Your task to perform on an android device: add a contact Image 0: 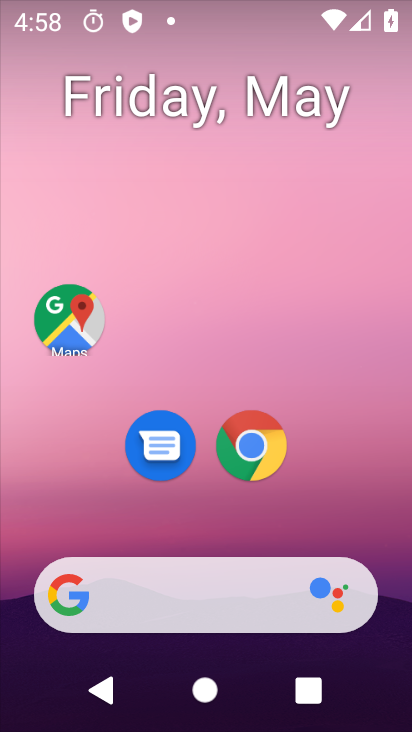
Step 0: drag from (333, 591) to (178, 60)
Your task to perform on an android device: add a contact Image 1: 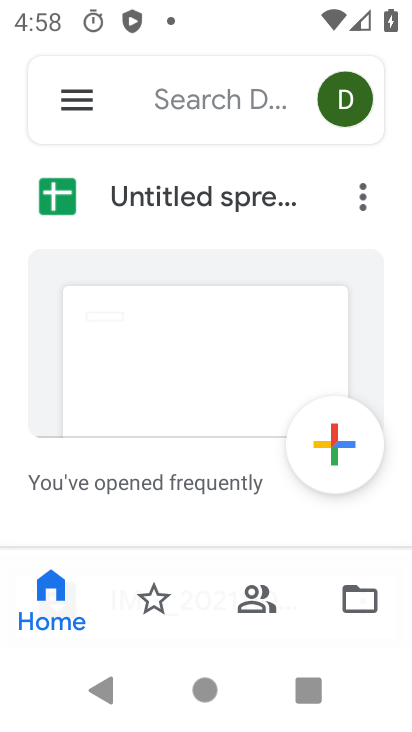
Step 1: press back button
Your task to perform on an android device: add a contact Image 2: 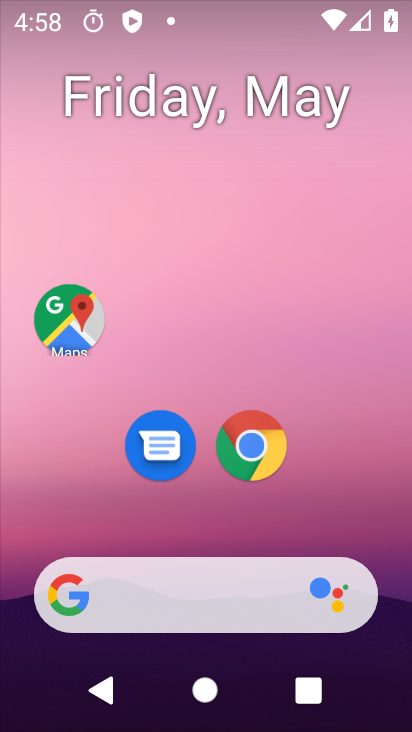
Step 2: drag from (321, 644) to (188, 162)
Your task to perform on an android device: add a contact Image 3: 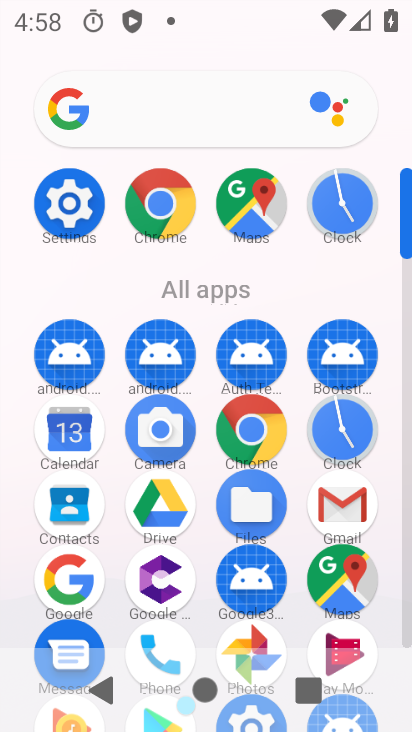
Step 3: click (74, 506)
Your task to perform on an android device: add a contact Image 4: 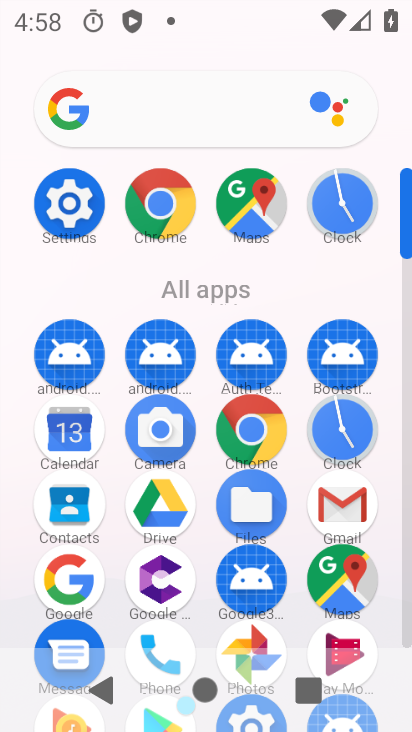
Step 4: click (75, 506)
Your task to perform on an android device: add a contact Image 5: 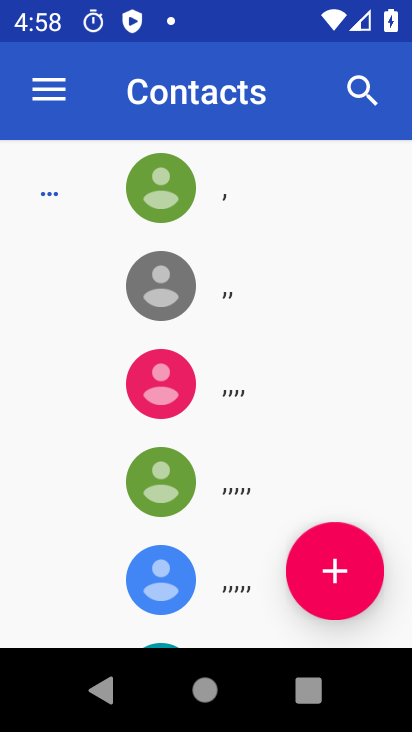
Step 5: click (347, 583)
Your task to perform on an android device: add a contact Image 6: 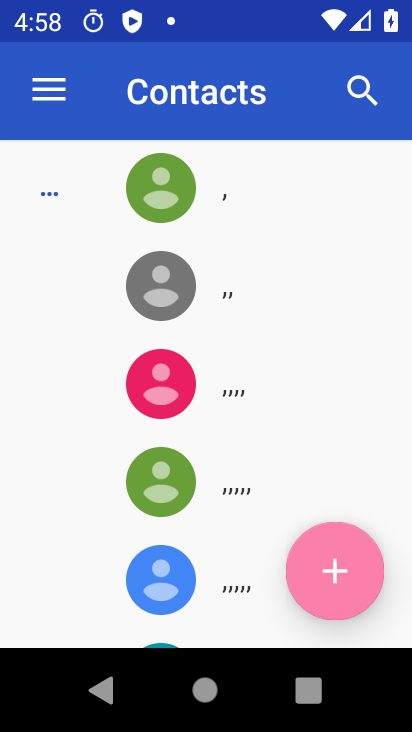
Step 6: click (339, 583)
Your task to perform on an android device: add a contact Image 7: 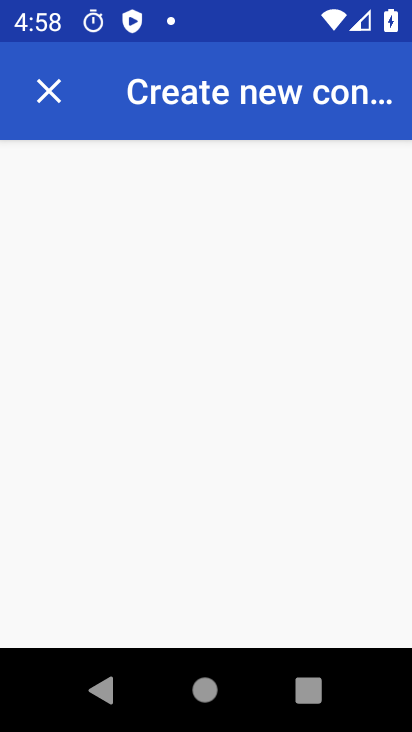
Step 7: click (337, 583)
Your task to perform on an android device: add a contact Image 8: 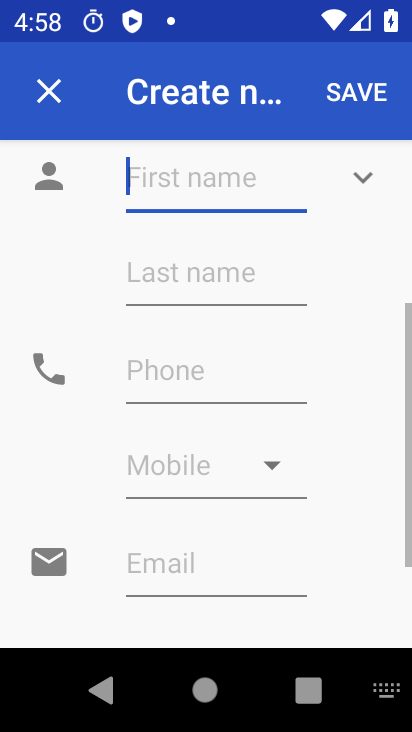
Step 8: click (337, 583)
Your task to perform on an android device: add a contact Image 9: 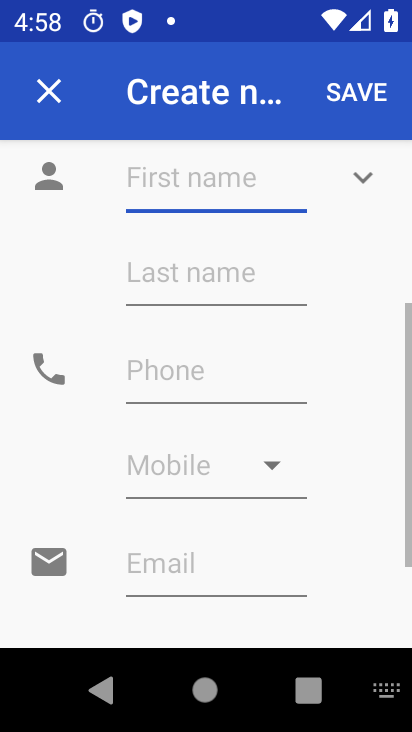
Step 9: click (330, 579)
Your task to perform on an android device: add a contact Image 10: 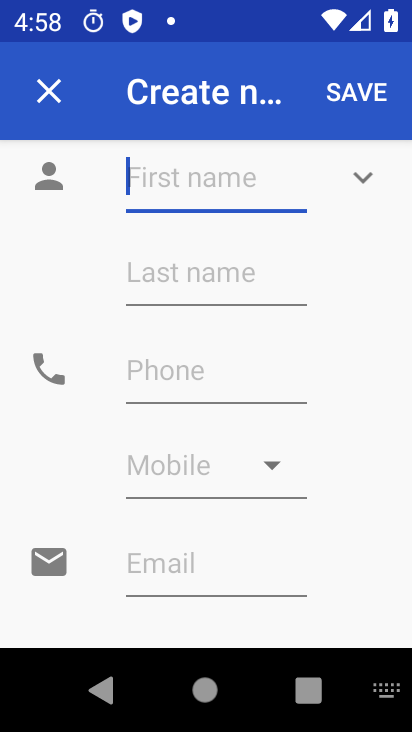
Step 10: type "ytuyewguywf"
Your task to perform on an android device: add a contact Image 11: 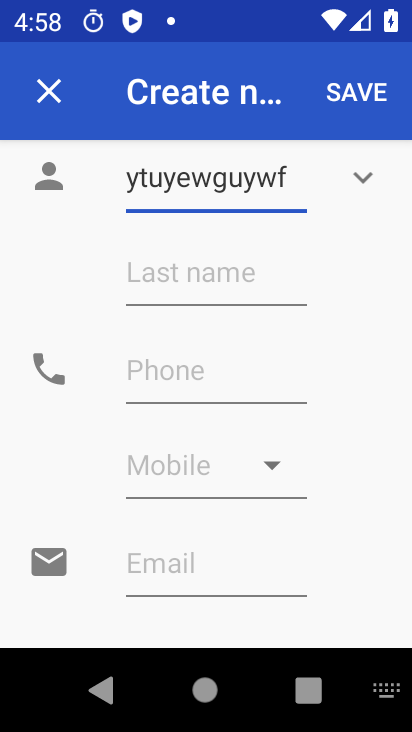
Step 11: click (155, 385)
Your task to perform on an android device: add a contact Image 12: 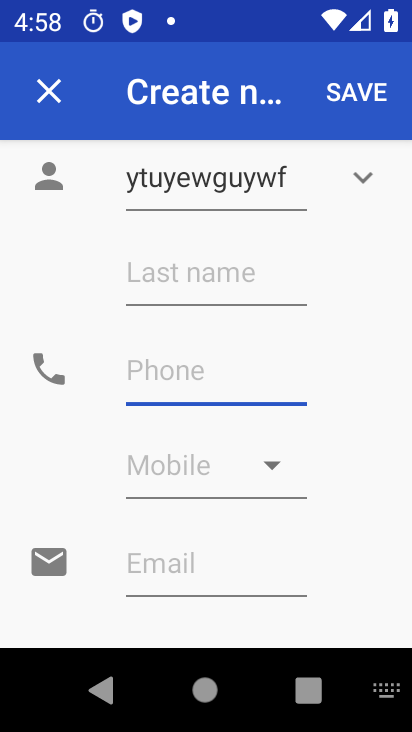
Step 12: click (155, 385)
Your task to perform on an android device: add a contact Image 13: 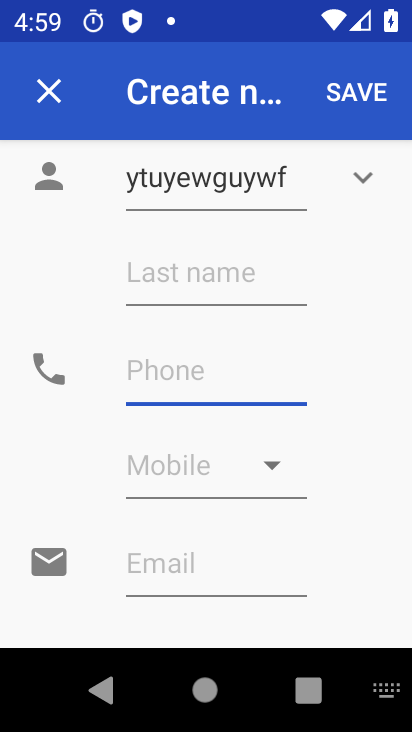
Step 13: type "6876487348788"
Your task to perform on an android device: add a contact Image 14: 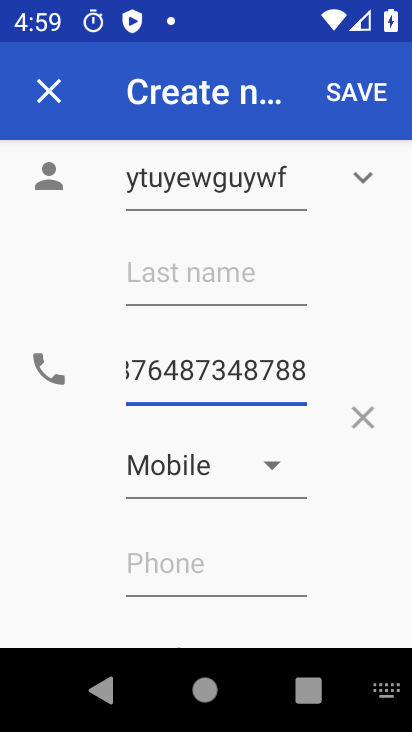
Step 14: click (337, 91)
Your task to perform on an android device: add a contact Image 15: 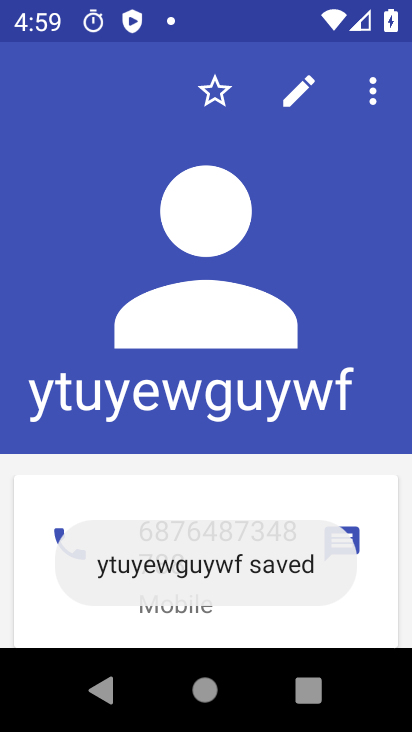
Step 15: click (331, 62)
Your task to perform on an android device: add a contact Image 16: 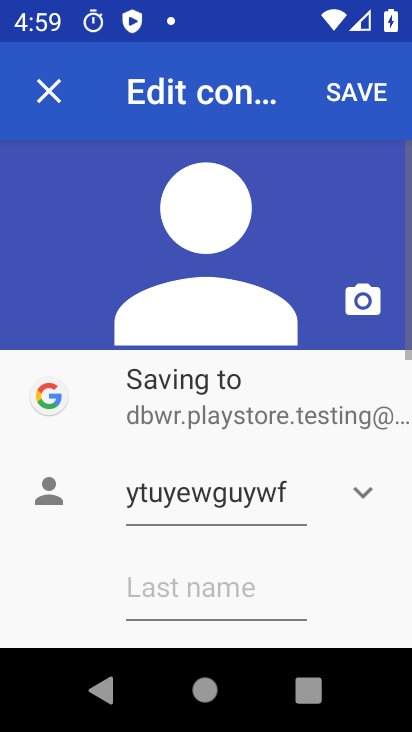
Step 16: task complete